Your task to perform on an android device: Open the stopwatch Image 0: 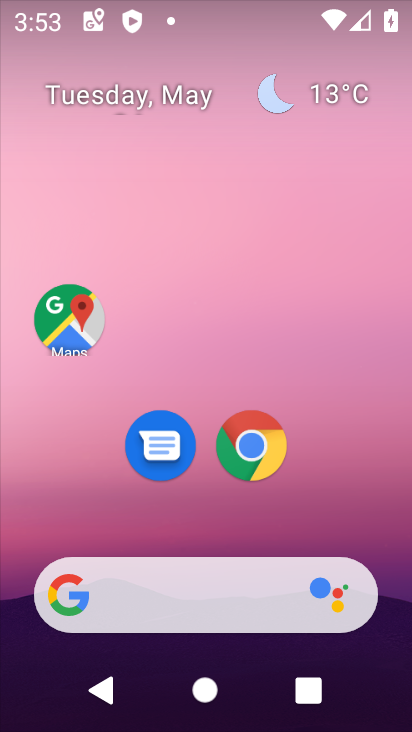
Step 0: drag from (209, 518) to (252, 90)
Your task to perform on an android device: Open the stopwatch Image 1: 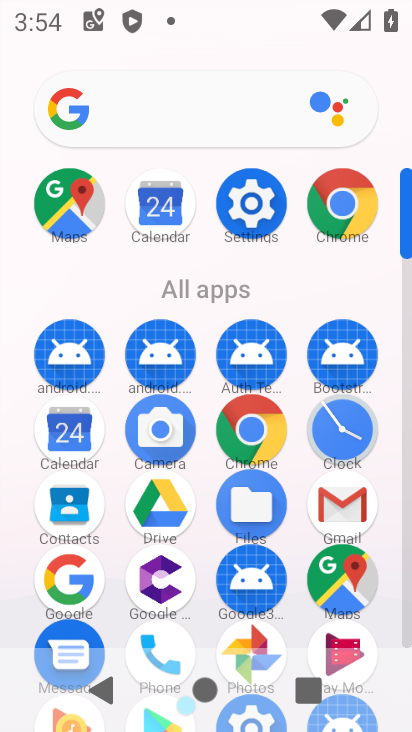
Step 1: drag from (200, 599) to (213, 218)
Your task to perform on an android device: Open the stopwatch Image 2: 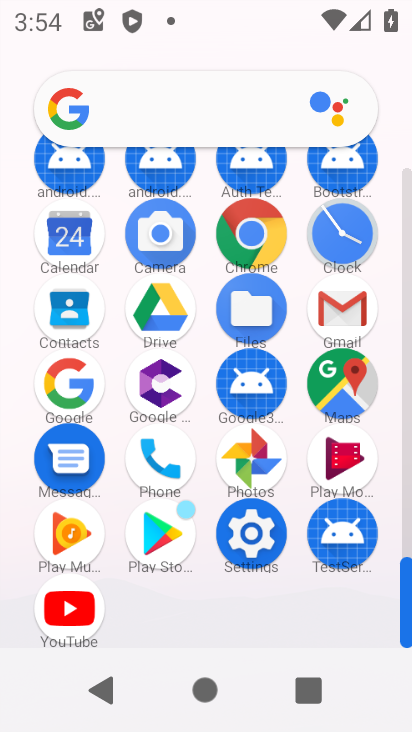
Step 2: click (342, 224)
Your task to perform on an android device: Open the stopwatch Image 3: 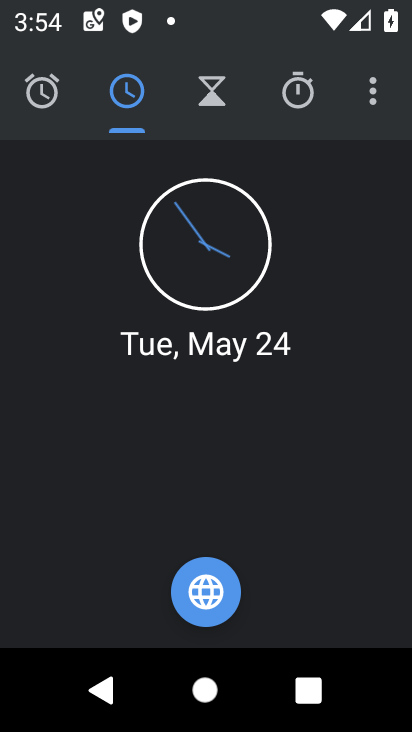
Step 3: click (294, 89)
Your task to perform on an android device: Open the stopwatch Image 4: 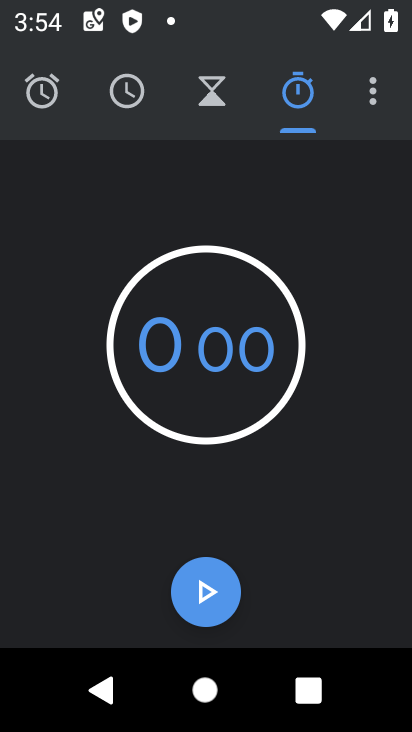
Step 4: click (204, 583)
Your task to perform on an android device: Open the stopwatch Image 5: 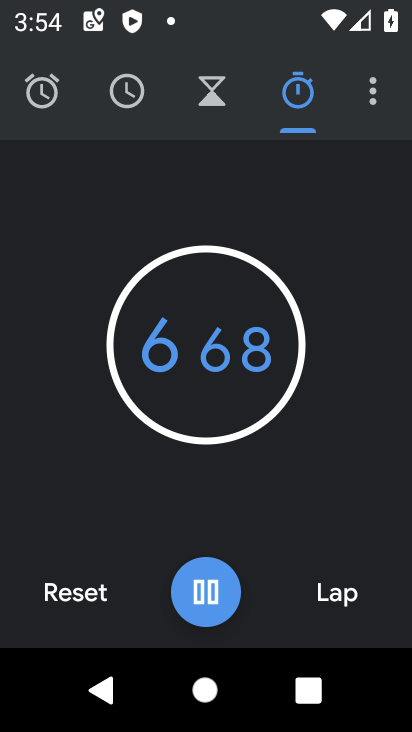
Step 5: task complete